Your task to perform on an android device: Search for pizza restaurants on Maps Image 0: 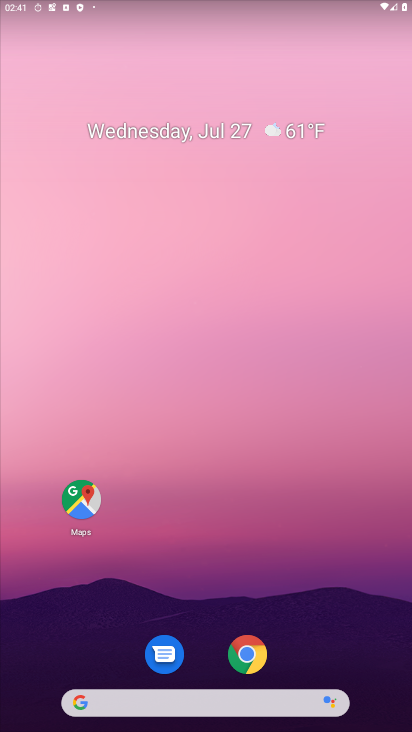
Step 0: drag from (332, 559) to (347, 33)
Your task to perform on an android device: Search for pizza restaurants on Maps Image 1: 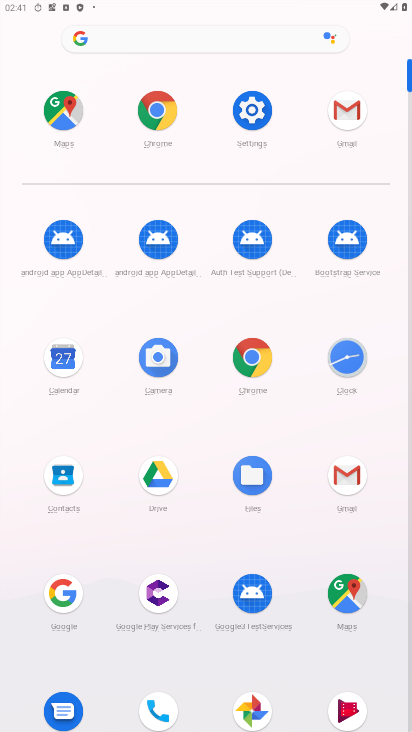
Step 1: click (357, 602)
Your task to perform on an android device: Search for pizza restaurants on Maps Image 2: 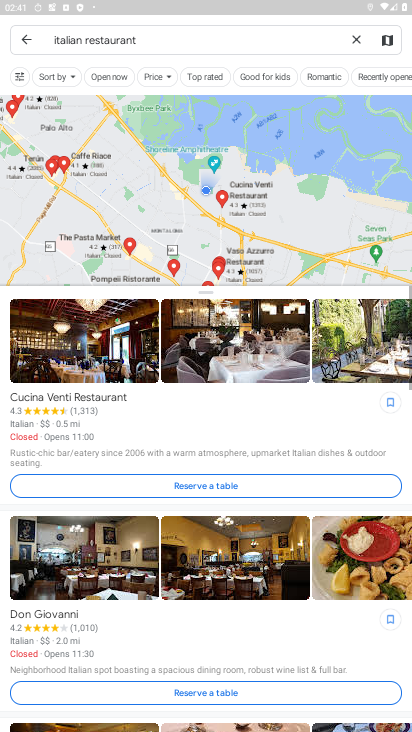
Step 2: press back button
Your task to perform on an android device: Search for pizza restaurants on Maps Image 3: 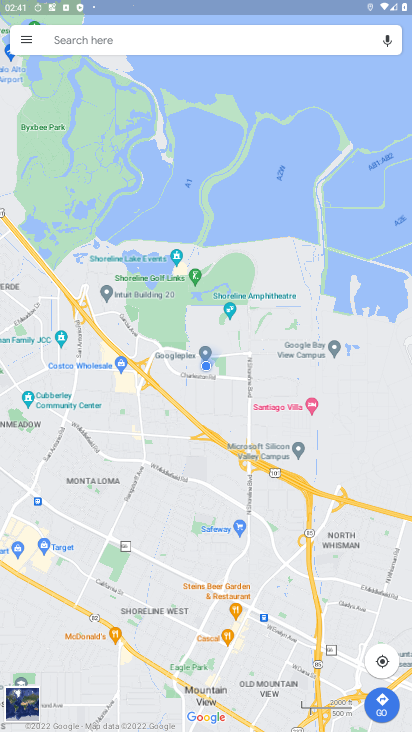
Step 3: click (197, 41)
Your task to perform on an android device: Search for pizza restaurants on Maps Image 4: 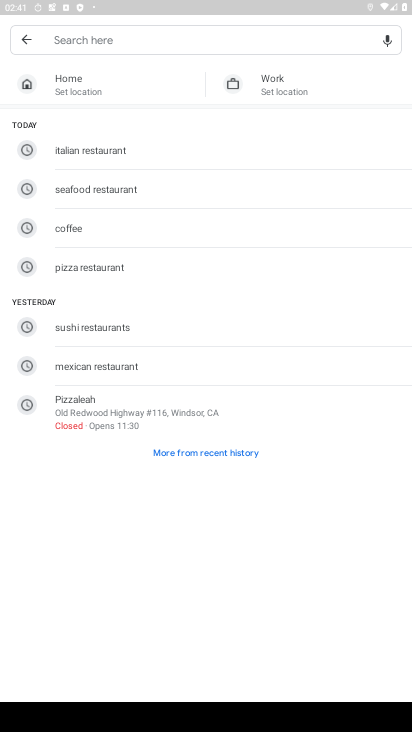
Step 4: click (86, 263)
Your task to perform on an android device: Search for pizza restaurants on Maps Image 5: 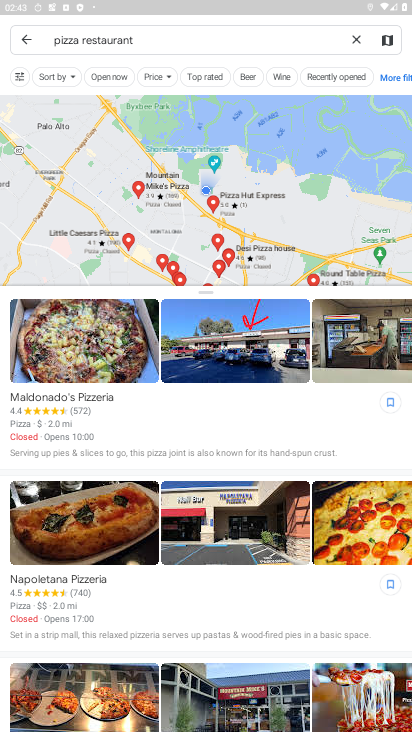
Step 5: task complete